Your task to perform on an android device: Open Chrome and go to the settings page Image 0: 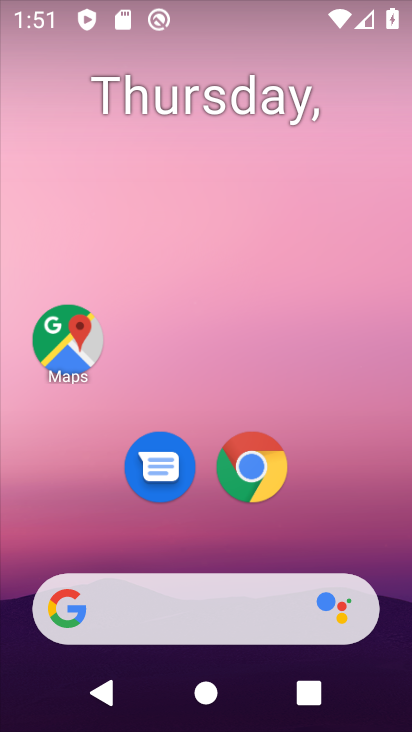
Step 0: drag from (377, 537) to (328, 114)
Your task to perform on an android device: Open Chrome and go to the settings page Image 1: 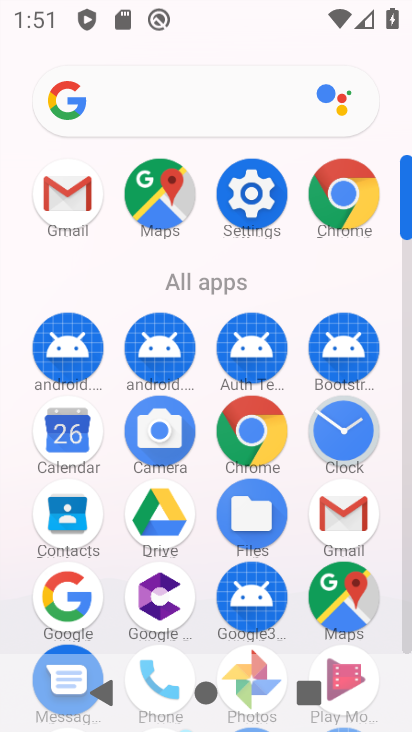
Step 1: click (253, 417)
Your task to perform on an android device: Open Chrome and go to the settings page Image 2: 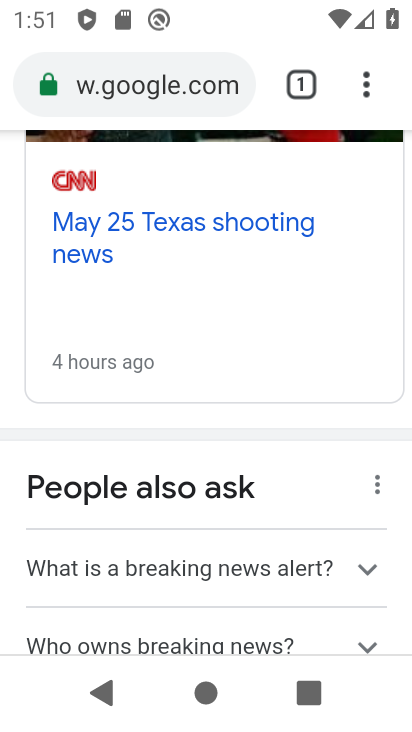
Step 2: drag from (357, 96) to (346, 506)
Your task to perform on an android device: Open Chrome and go to the settings page Image 3: 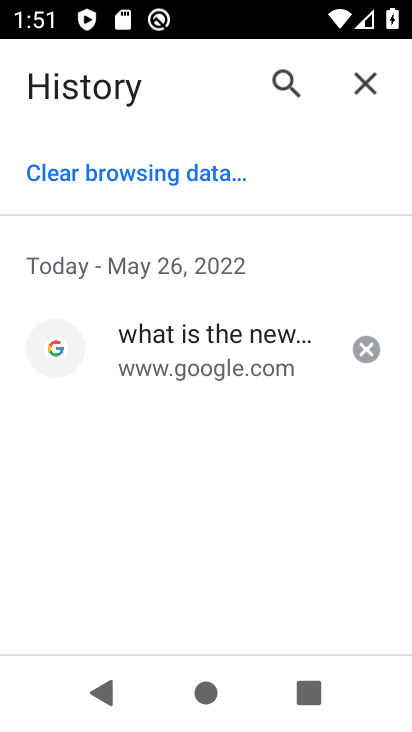
Step 3: click (356, 96)
Your task to perform on an android device: Open Chrome and go to the settings page Image 4: 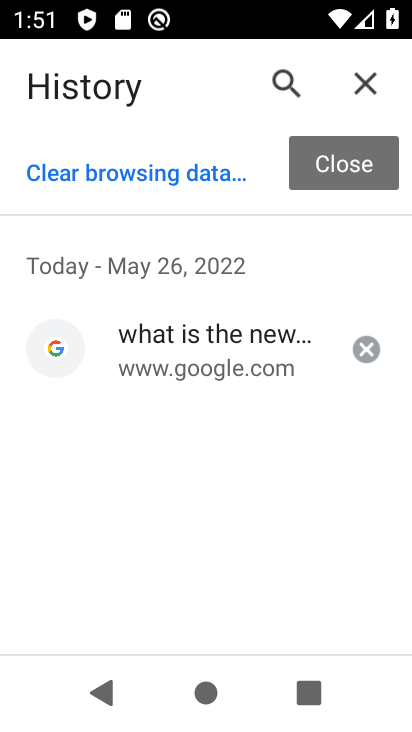
Step 4: click (356, 96)
Your task to perform on an android device: Open Chrome and go to the settings page Image 5: 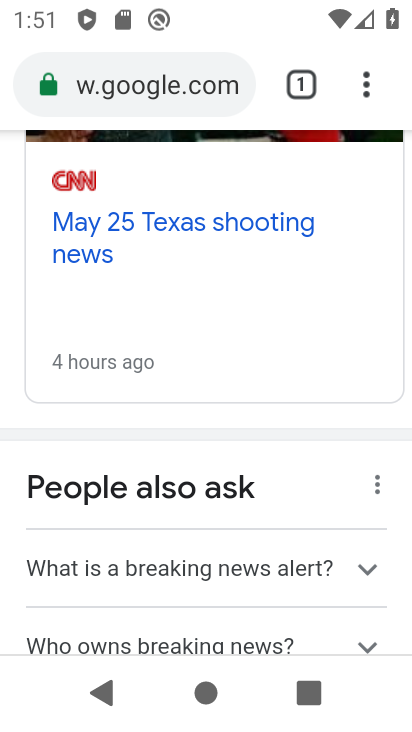
Step 5: task complete